Your task to perform on an android device: empty trash in the gmail app Image 0: 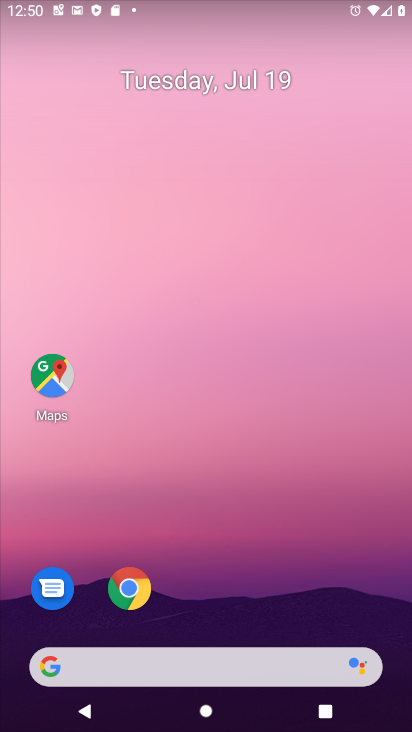
Step 0: drag from (340, 606) to (240, 25)
Your task to perform on an android device: empty trash in the gmail app Image 1: 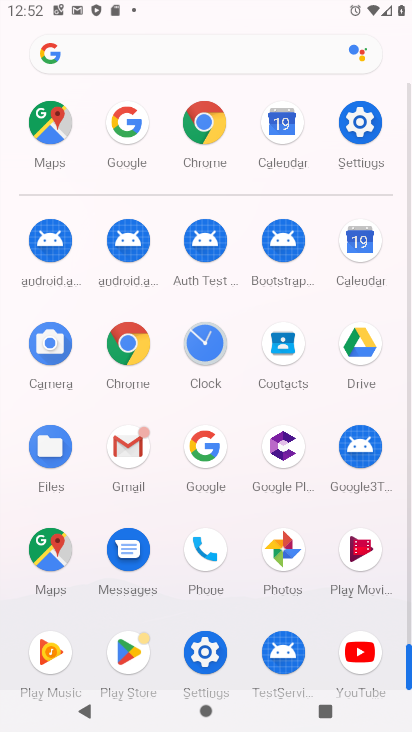
Step 1: click (130, 428)
Your task to perform on an android device: empty trash in the gmail app Image 2: 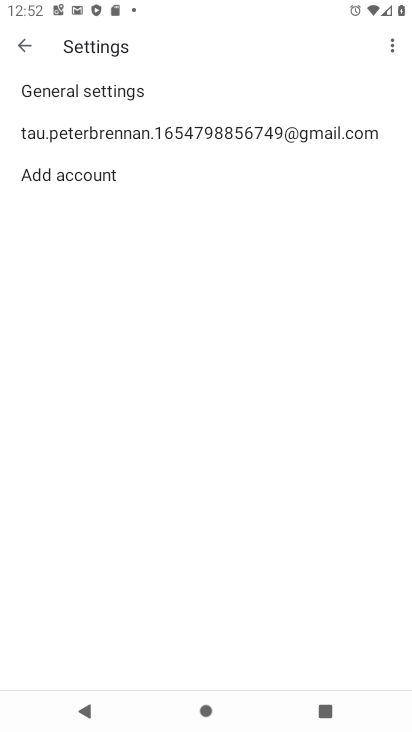
Step 2: press back button
Your task to perform on an android device: empty trash in the gmail app Image 3: 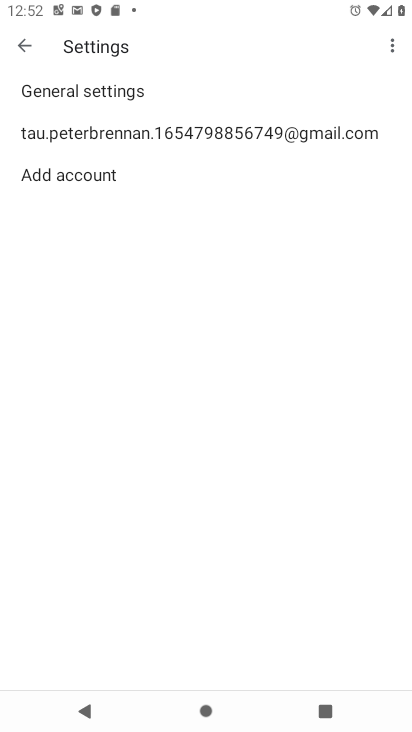
Step 3: press back button
Your task to perform on an android device: empty trash in the gmail app Image 4: 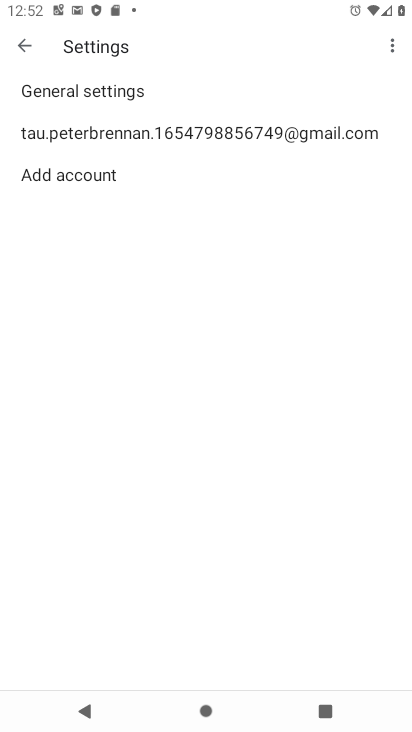
Step 4: click (25, 46)
Your task to perform on an android device: empty trash in the gmail app Image 5: 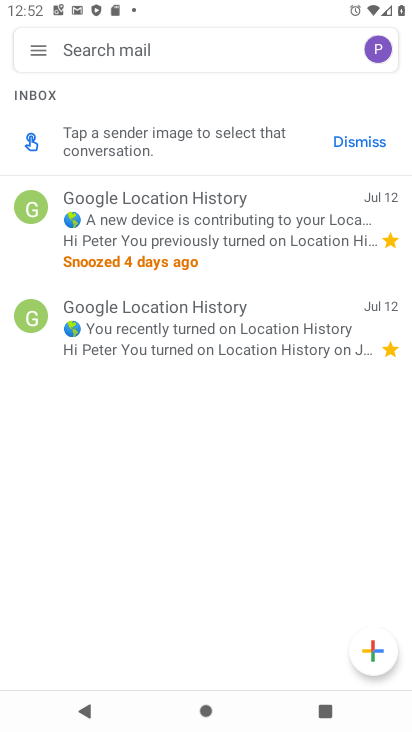
Step 5: click (25, 46)
Your task to perform on an android device: empty trash in the gmail app Image 6: 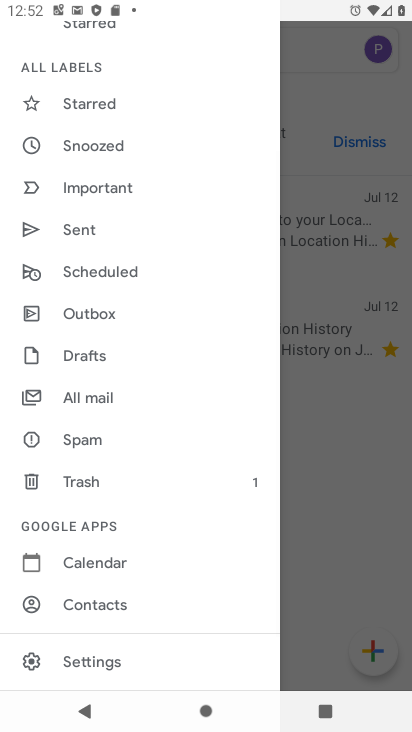
Step 6: click (74, 476)
Your task to perform on an android device: empty trash in the gmail app Image 7: 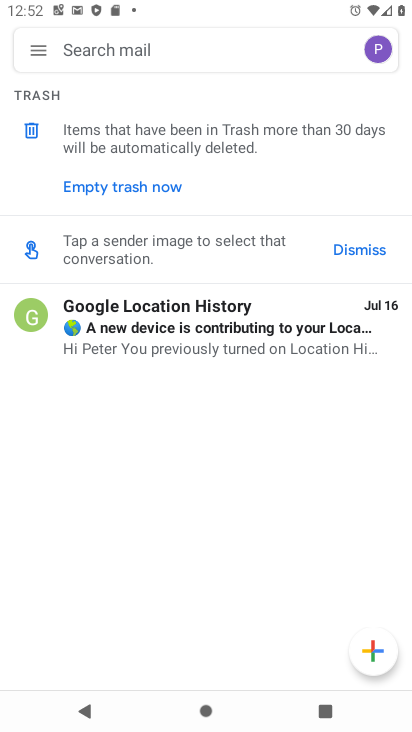
Step 7: click (111, 195)
Your task to perform on an android device: empty trash in the gmail app Image 8: 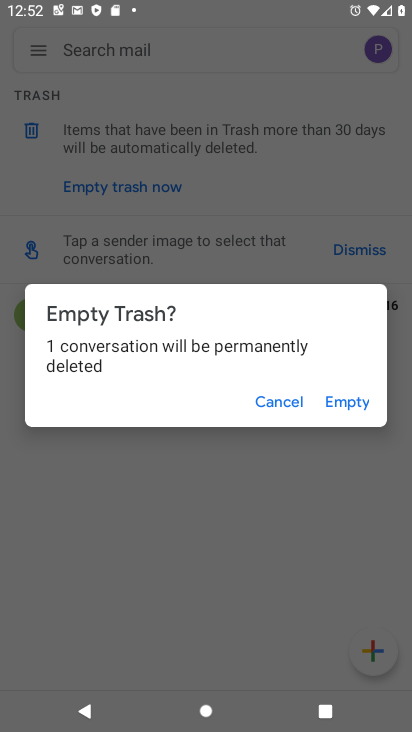
Step 8: click (341, 401)
Your task to perform on an android device: empty trash in the gmail app Image 9: 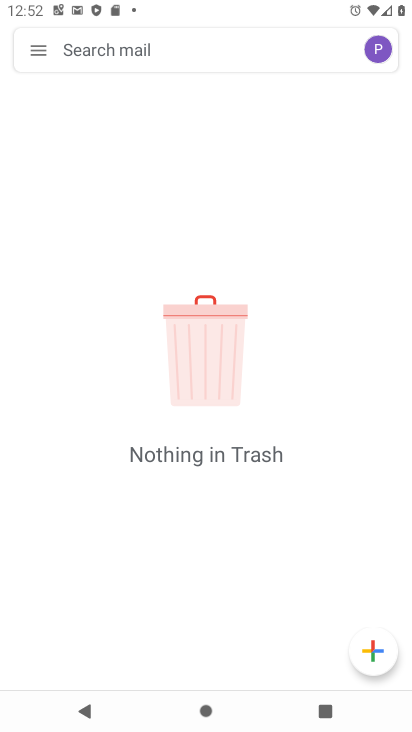
Step 9: task complete